Your task to perform on an android device: Open settings on Google Maps Image 0: 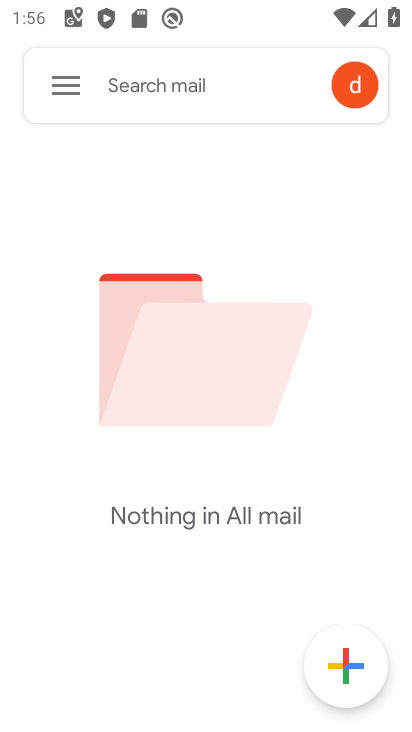
Step 0: press home button
Your task to perform on an android device: Open settings on Google Maps Image 1: 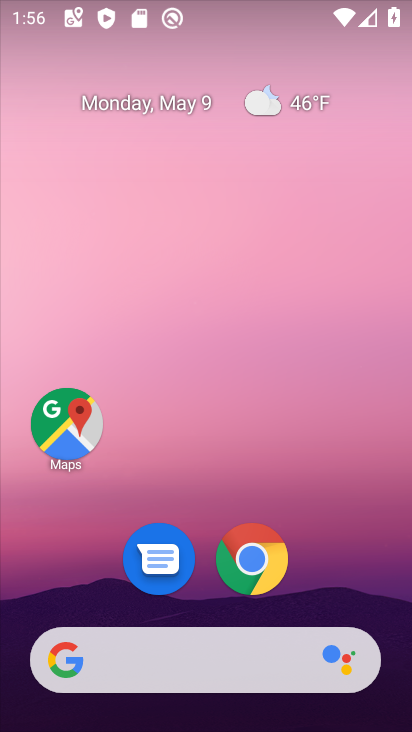
Step 1: click (62, 437)
Your task to perform on an android device: Open settings on Google Maps Image 2: 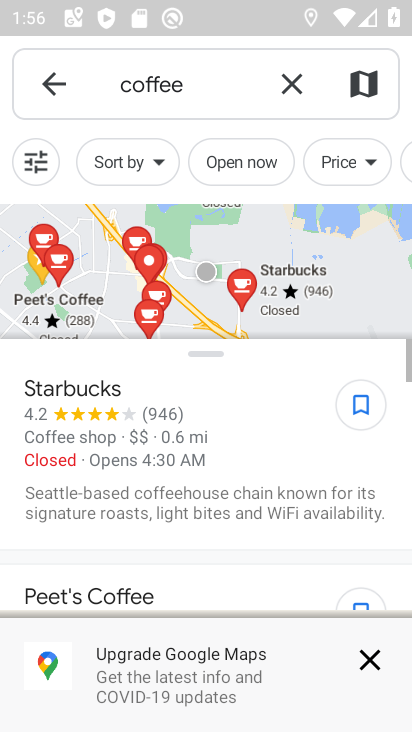
Step 2: click (288, 97)
Your task to perform on an android device: Open settings on Google Maps Image 3: 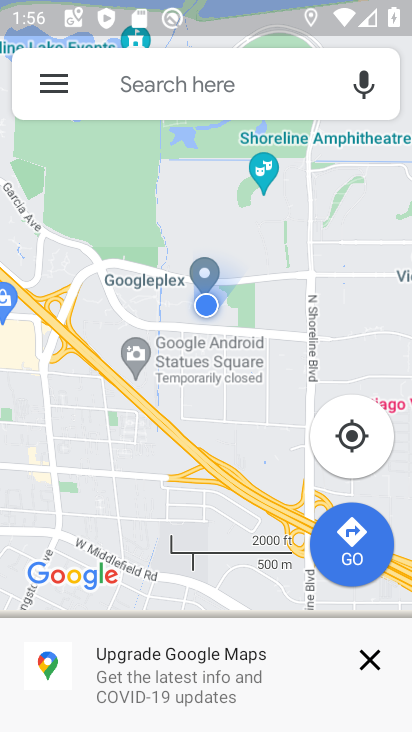
Step 3: click (172, 105)
Your task to perform on an android device: Open settings on Google Maps Image 4: 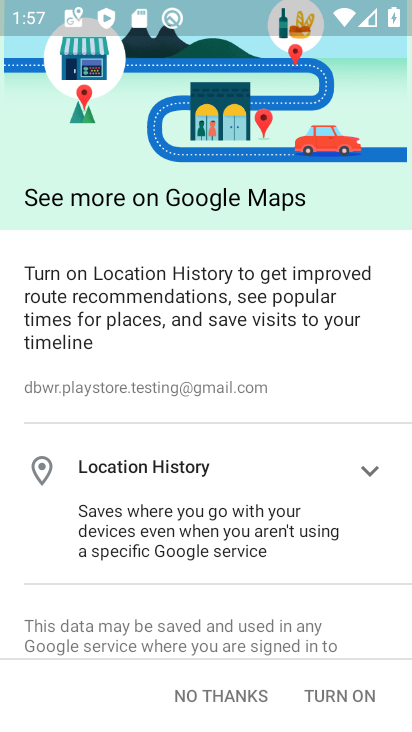
Step 4: click (187, 692)
Your task to perform on an android device: Open settings on Google Maps Image 5: 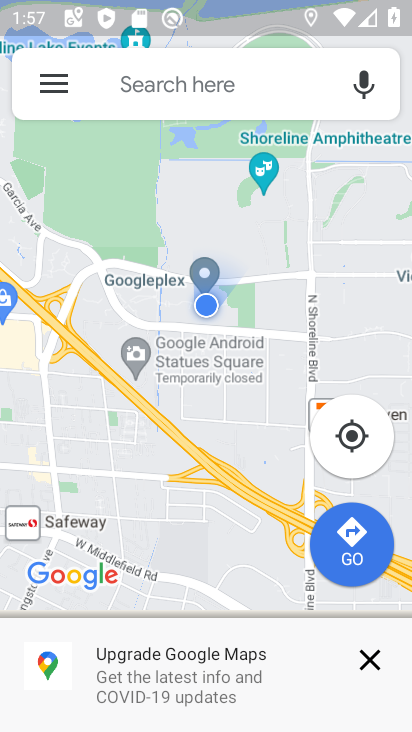
Step 5: click (42, 83)
Your task to perform on an android device: Open settings on Google Maps Image 6: 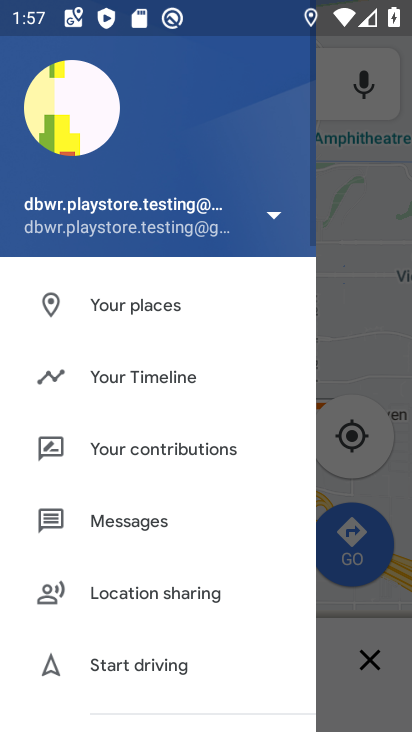
Step 6: drag from (164, 608) to (179, 181)
Your task to perform on an android device: Open settings on Google Maps Image 7: 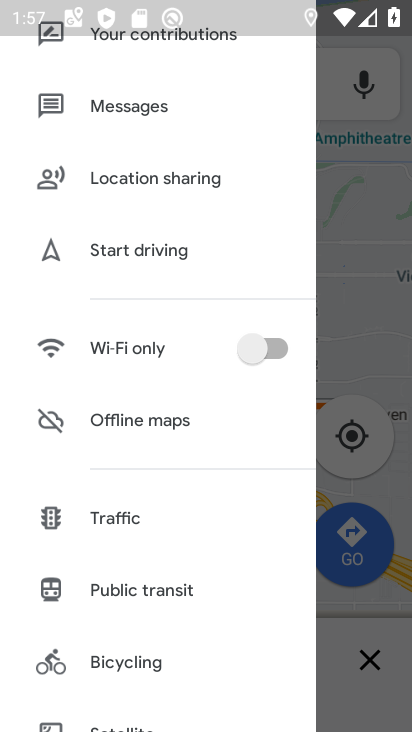
Step 7: drag from (183, 608) to (173, 203)
Your task to perform on an android device: Open settings on Google Maps Image 8: 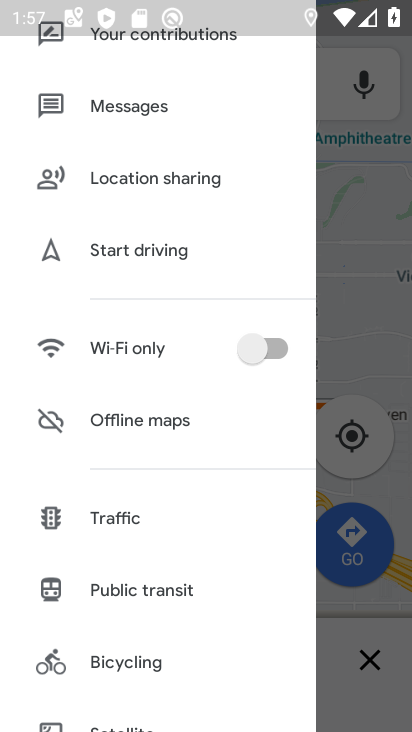
Step 8: drag from (177, 703) to (187, 260)
Your task to perform on an android device: Open settings on Google Maps Image 9: 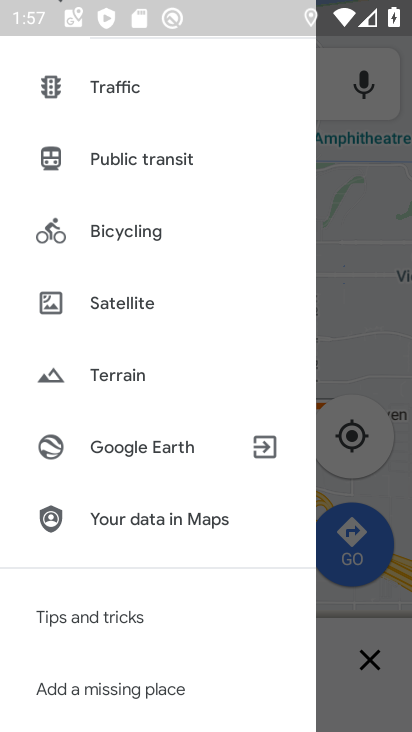
Step 9: drag from (210, 76) to (207, 637)
Your task to perform on an android device: Open settings on Google Maps Image 10: 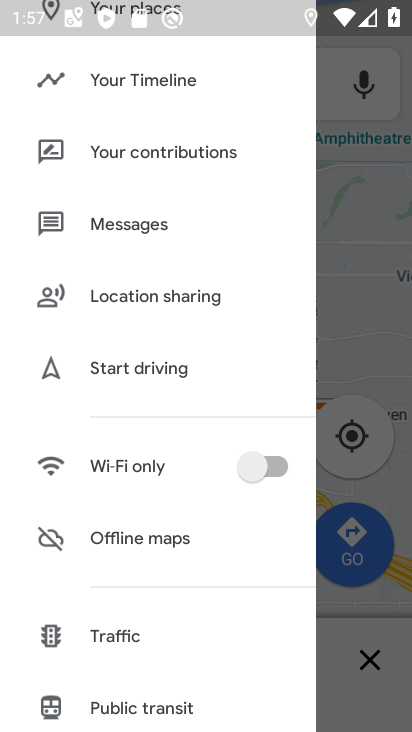
Step 10: drag from (133, 170) to (192, 634)
Your task to perform on an android device: Open settings on Google Maps Image 11: 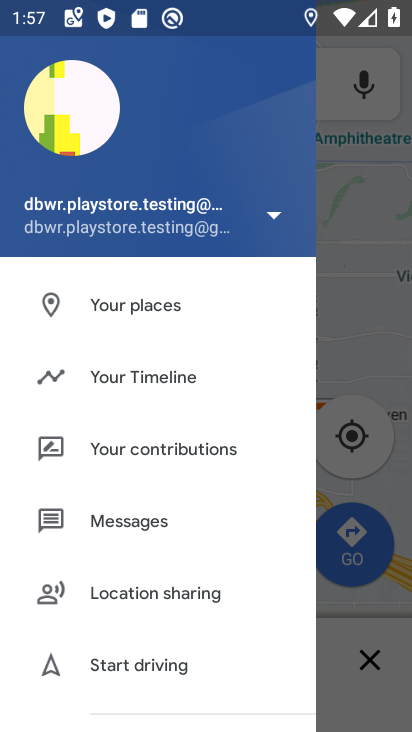
Step 11: click (343, 303)
Your task to perform on an android device: Open settings on Google Maps Image 12: 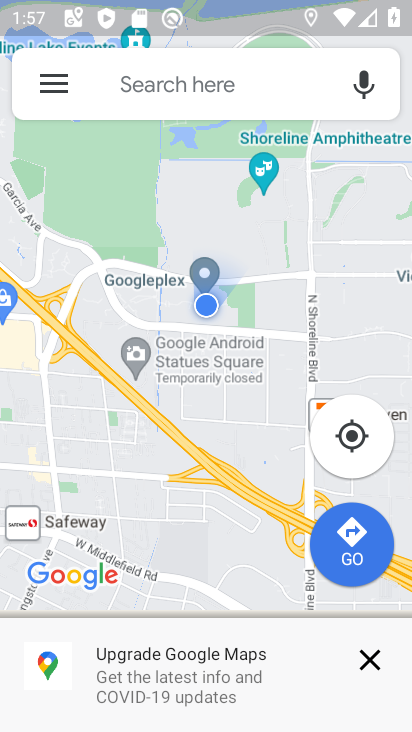
Step 12: click (62, 87)
Your task to perform on an android device: Open settings on Google Maps Image 13: 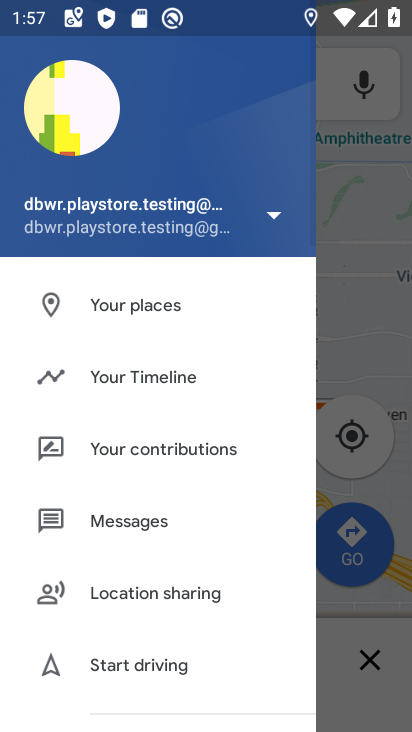
Step 13: click (117, 381)
Your task to perform on an android device: Open settings on Google Maps Image 14: 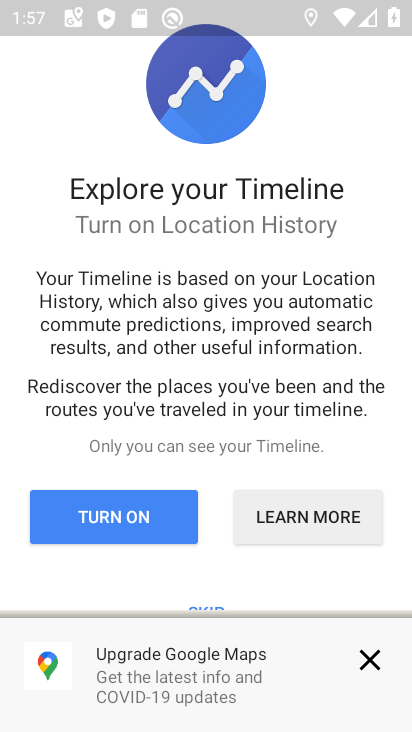
Step 14: click (219, 604)
Your task to perform on an android device: Open settings on Google Maps Image 15: 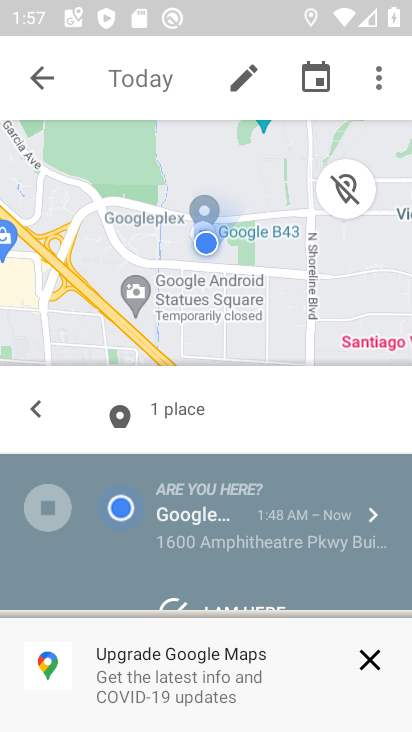
Step 15: click (392, 84)
Your task to perform on an android device: Open settings on Google Maps Image 16: 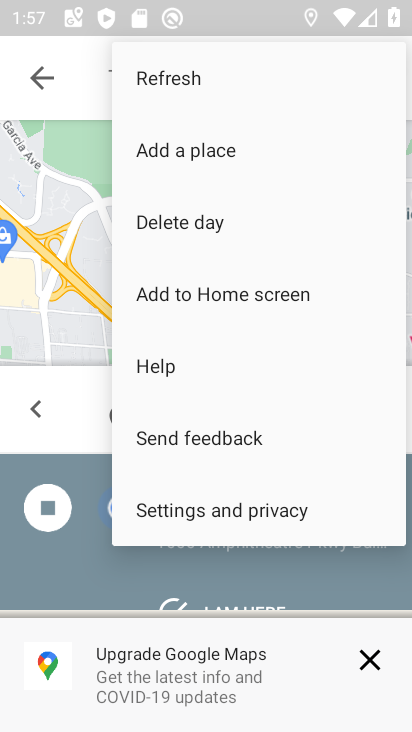
Step 16: click (186, 503)
Your task to perform on an android device: Open settings on Google Maps Image 17: 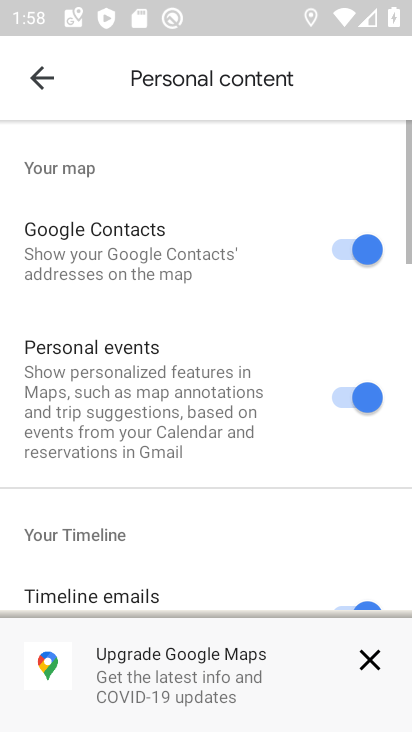
Step 17: task complete